Your task to perform on an android device: Search for alienware aurora on ebay.com, select the first entry, and add it to the cart. Image 0: 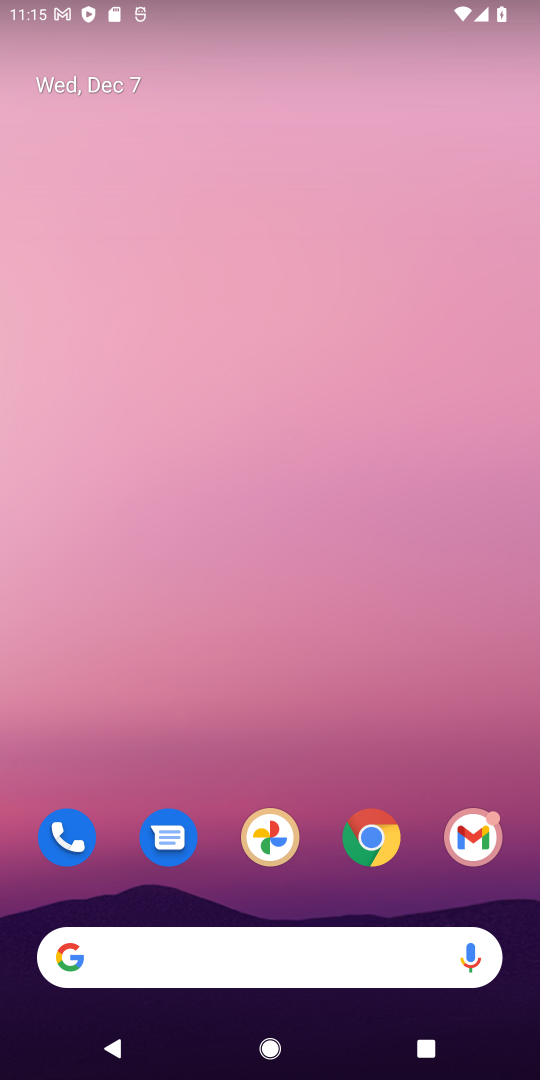
Step 0: click (364, 838)
Your task to perform on an android device: Search for alienware aurora on ebay.com, select the first entry, and add it to the cart. Image 1: 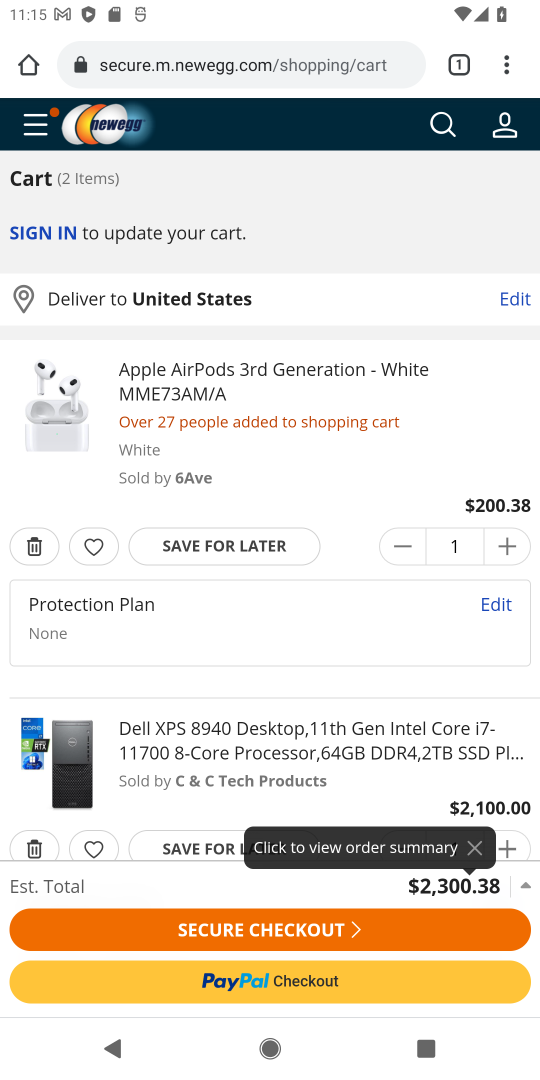
Step 1: click (325, 62)
Your task to perform on an android device: Search for alienware aurora on ebay.com, select the first entry, and add it to the cart. Image 2: 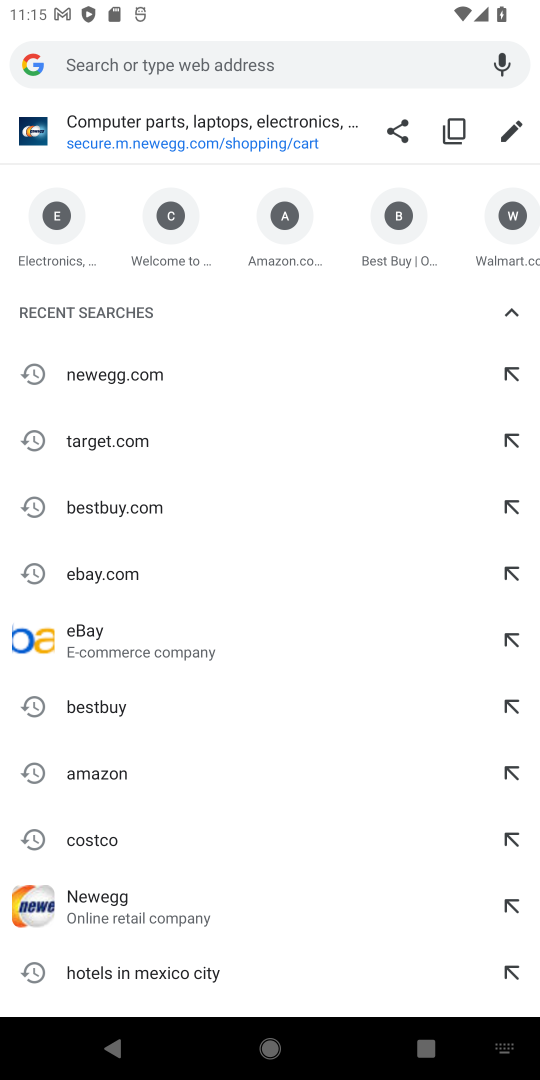
Step 2: click (119, 575)
Your task to perform on an android device: Search for alienware aurora on ebay.com, select the first entry, and add it to the cart. Image 3: 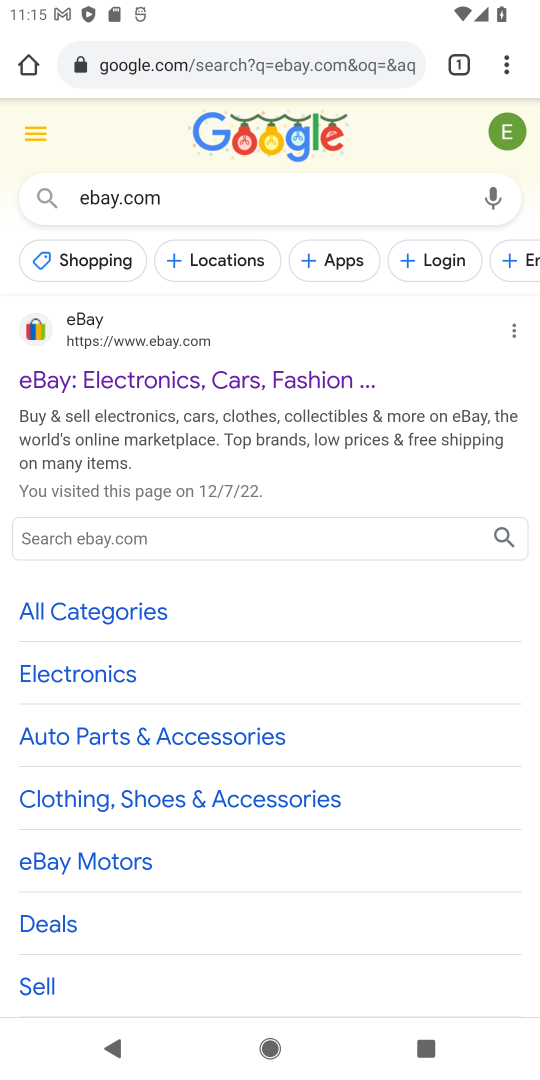
Step 3: click (178, 342)
Your task to perform on an android device: Search for alienware aurora on ebay.com, select the first entry, and add it to the cart. Image 4: 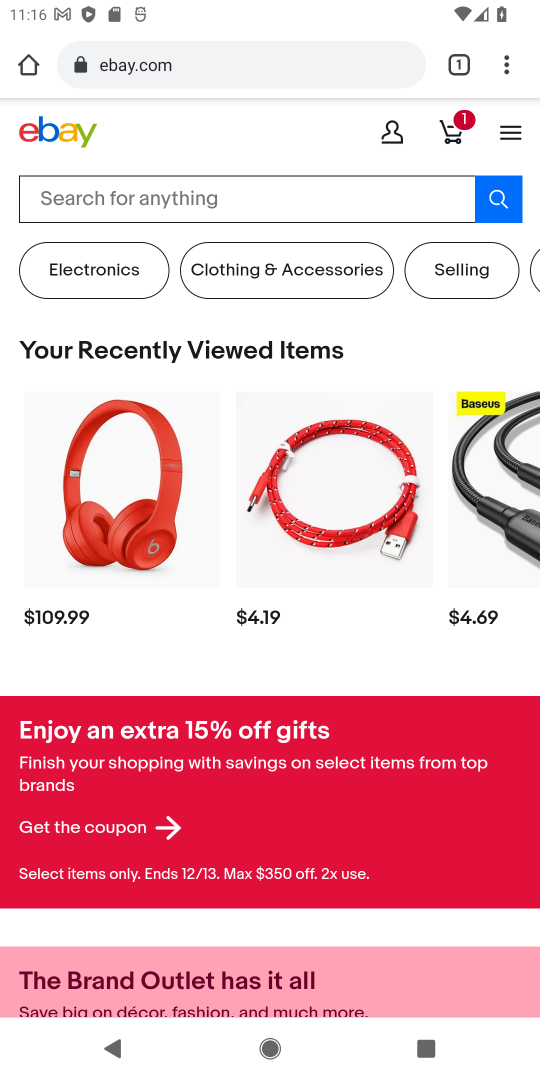
Step 4: click (275, 188)
Your task to perform on an android device: Search for alienware aurora on ebay.com, select the first entry, and add it to the cart. Image 5: 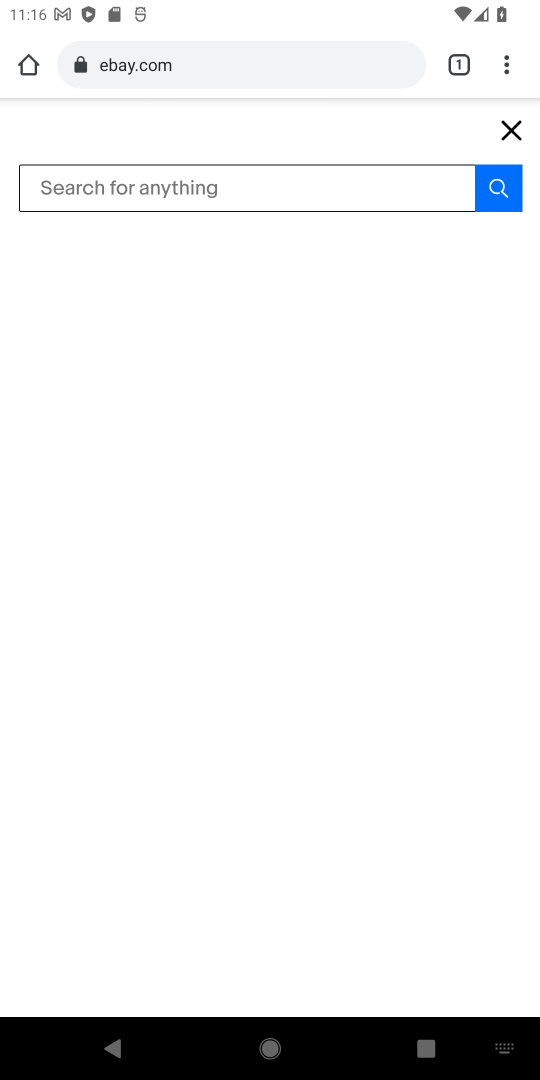
Step 5: type "alienware aurora"
Your task to perform on an android device: Search for alienware aurora on ebay.com, select the first entry, and add it to the cart. Image 6: 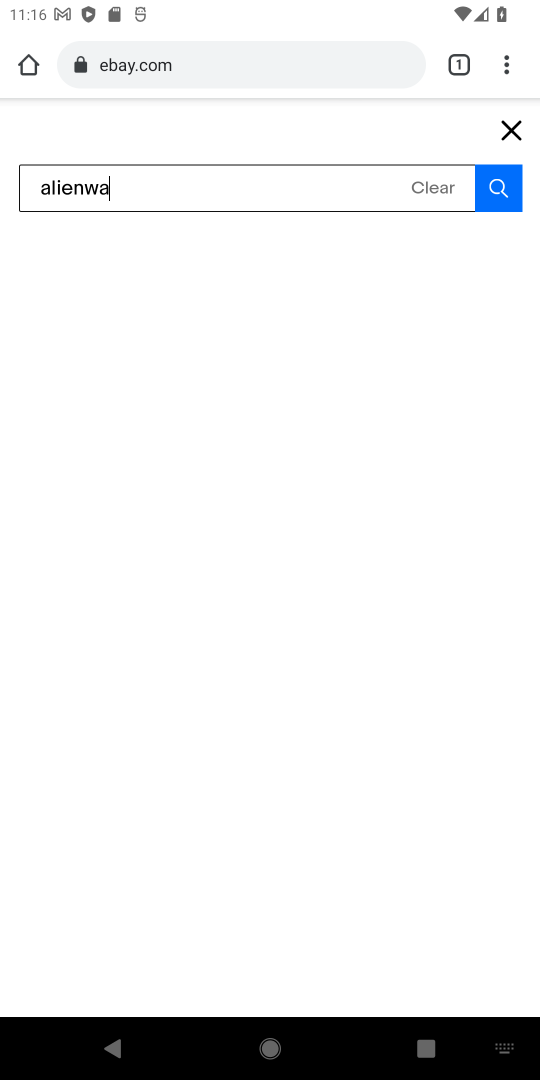
Step 6: press enter
Your task to perform on an android device: Search for alienware aurora on ebay.com, select the first entry, and add it to the cart. Image 7: 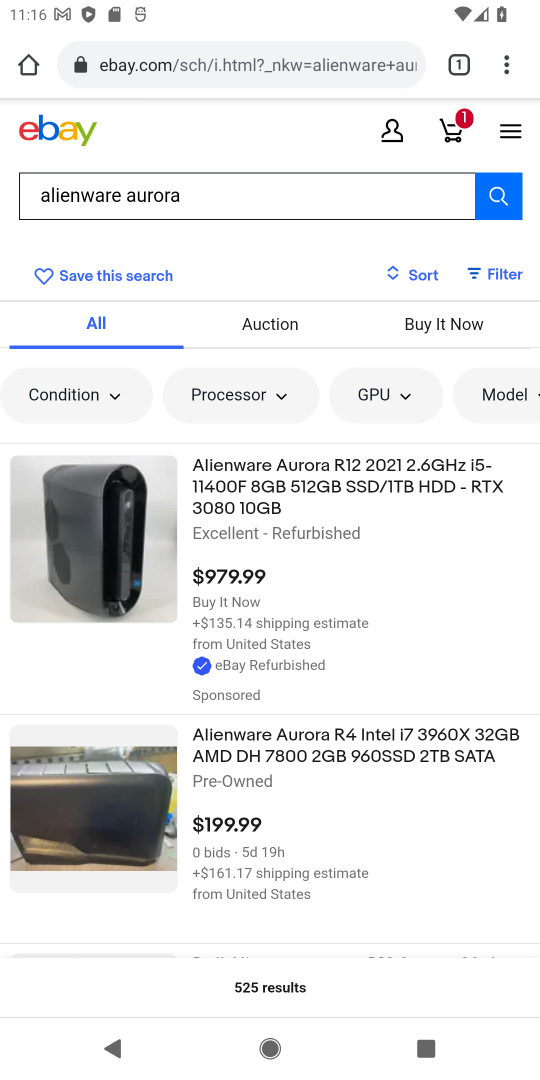
Step 7: click (146, 553)
Your task to perform on an android device: Search for alienware aurora on ebay.com, select the first entry, and add it to the cart. Image 8: 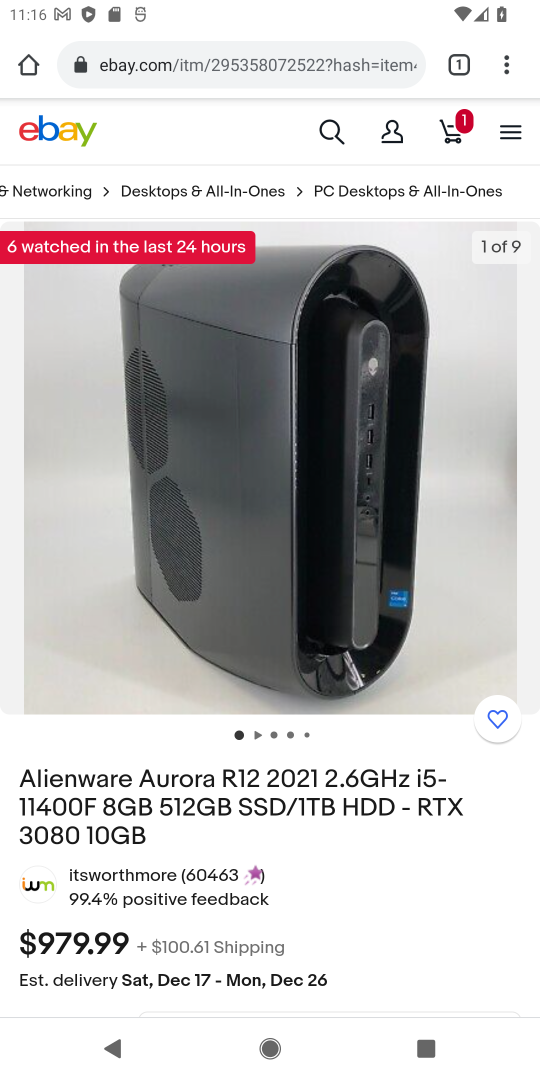
Step 8: drag from (454, 840) to (397, 208)
Your task to perform on an android device: Search for alienware aurora on ebay.com, select the first entry, and add it to the cart. Image 9: 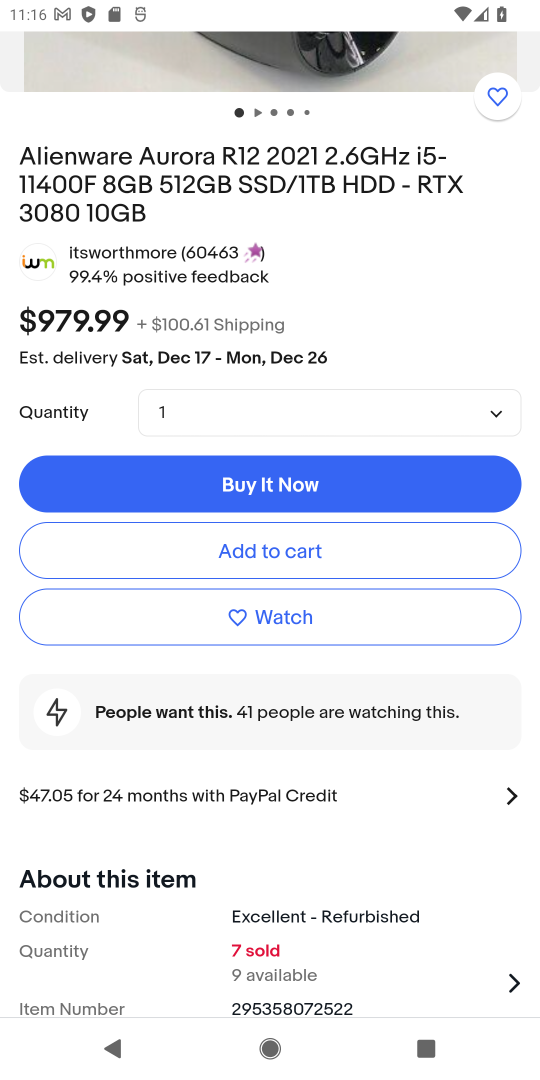
Step 9: click (286, 554)
Your task to perform on an android device: Search for alienware aurora on ebay.com, select the first entry, and add it to the cart. Image 10: 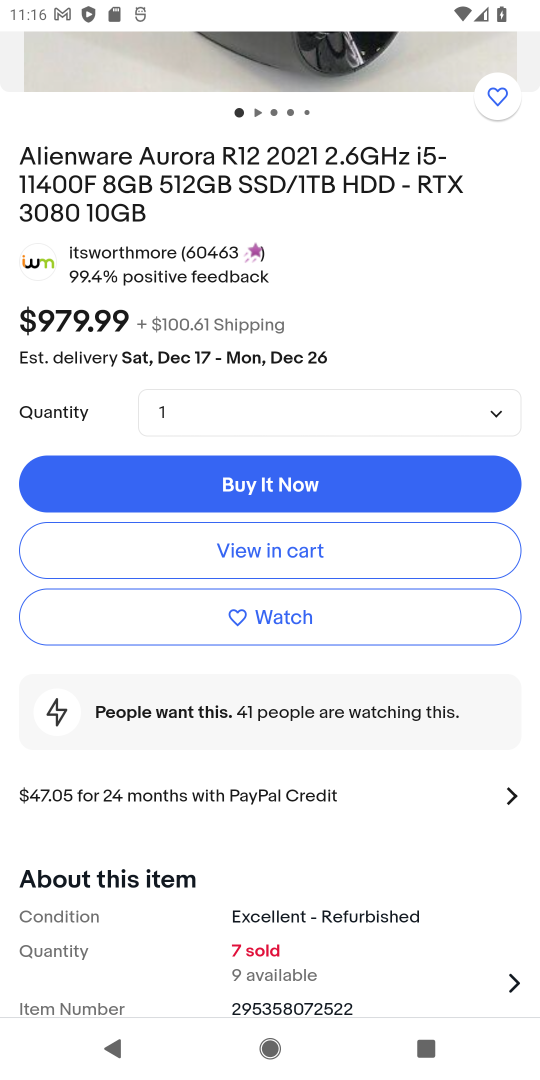
Step 10: click (298, 550)
Your task to perform on an android device: Search for alienware aurora on ebay.com, select the first entry, and add it to the cart. Image 11: 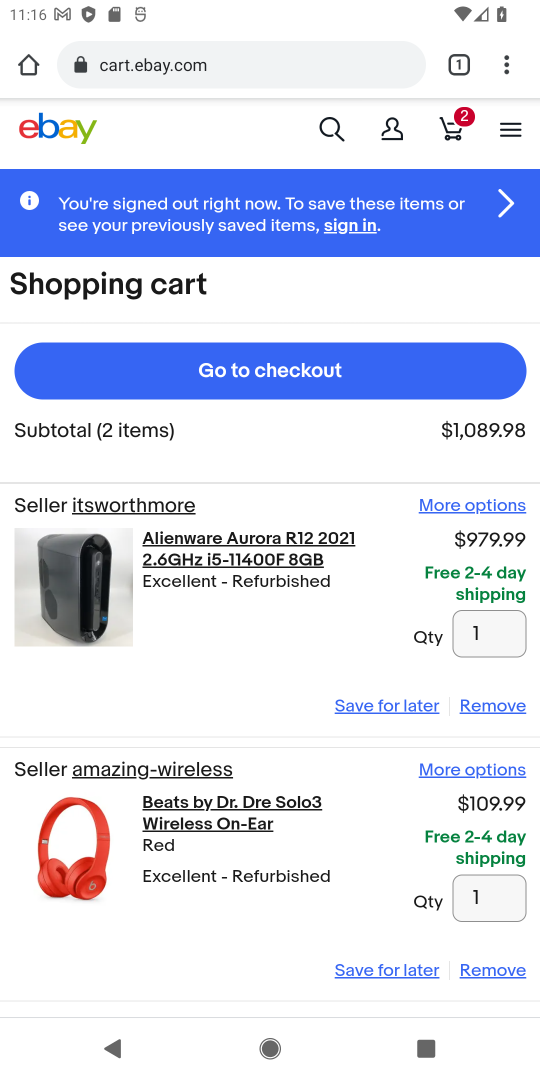
Step 11: task complete